Your task to perform on an android device: Go to accessibility settings Image 0: 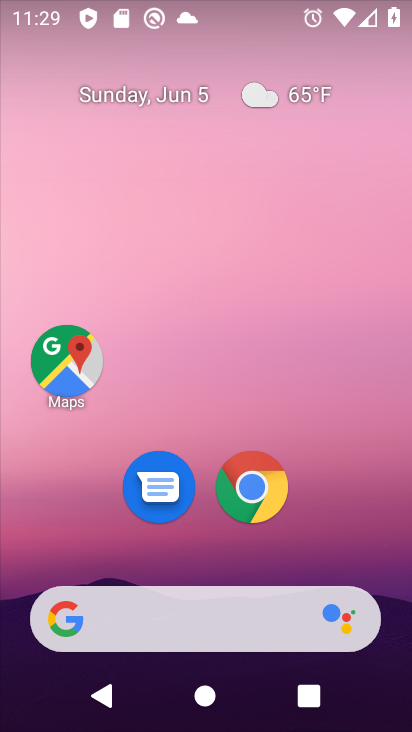
Step 0: drag from (335, 548) to (217, 84)
Your task to perform on an android device: Go to accessibility settings Image 1: 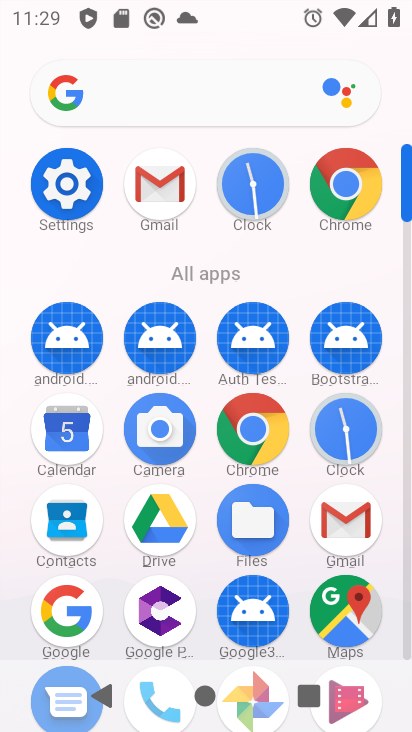
Step 1: click (66, 187)
Your task to perform on an android device: Go to accessibility settings Image 2: 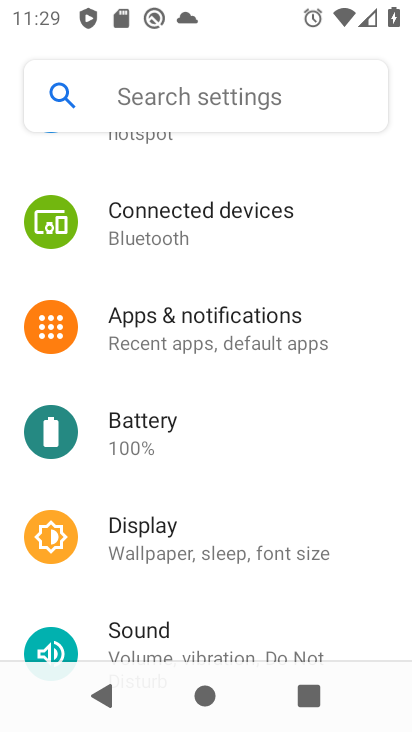
Step 2: drag from (159, 377) to (227, 273)
Your task to perform on an android device: Go to accessibility settings Image 3: 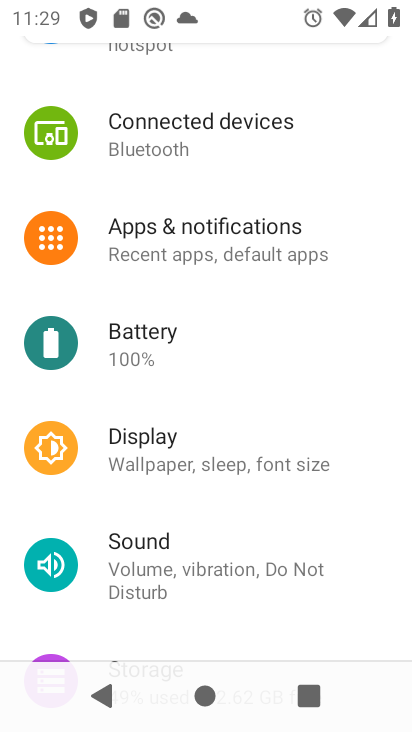
Step 3: drag from (165, 394) to (249, 300)
Your task to perform on an android device: Go to accessibility settings Image 4: 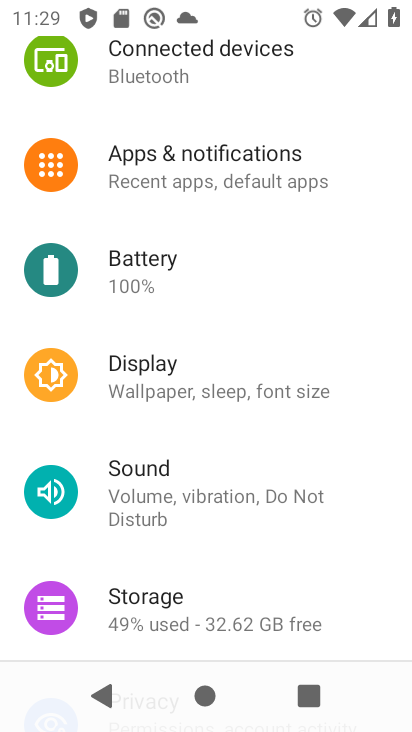
Step 4: drag from (153, 423) to (228, 333)
Your task to perform on an android device: Go to accessibility settings Image 5: 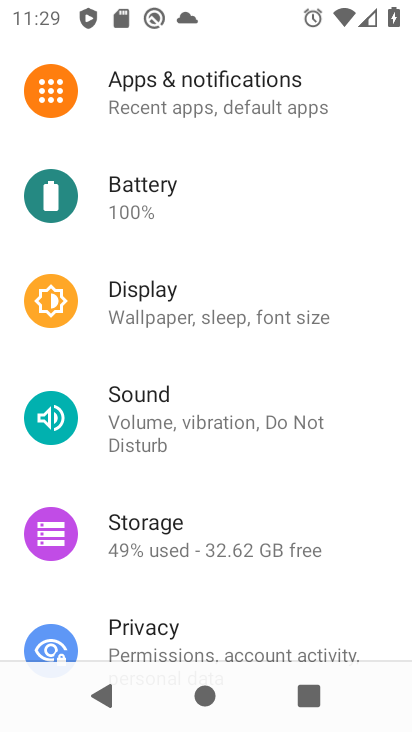
Step 5: drag from (122, 479) to (209, 350)
Your task to perform on an android device: Go to accessibility settings Image 6: 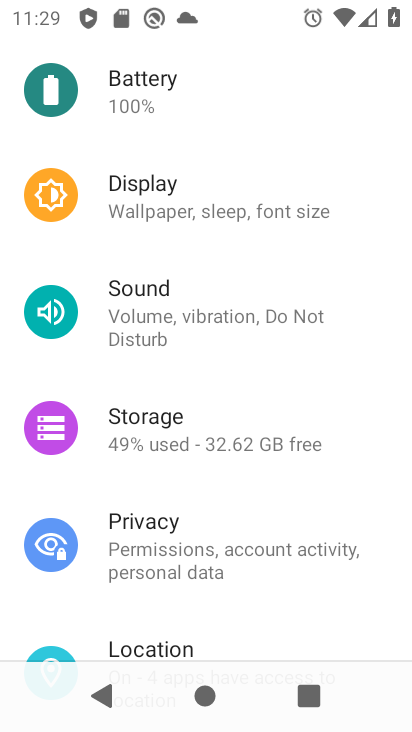
Step 6: drag from (144, 486) to (218, 361)
Your task to perform on an android device: Go to accessibility settings Image 7: 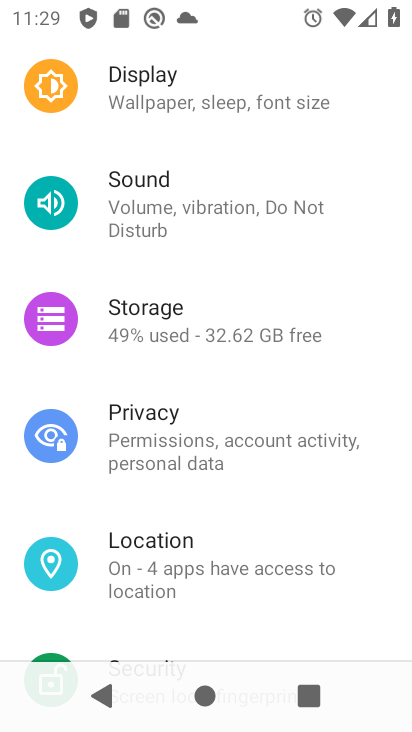
Step 7: drag from (131, 495) to (241, 364)
Your task to perform on an android device: Go to accessibility settings Image 8: 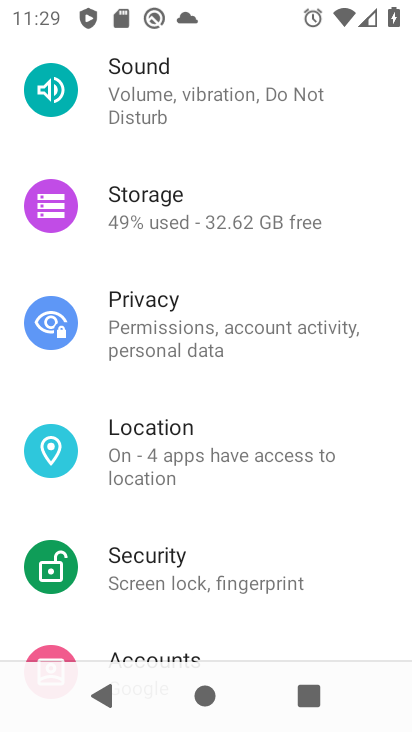
Step 8: drag from (121, 511) to (252, 359)
Your task to perform on an android device: Go to accessibility settings Image 9: 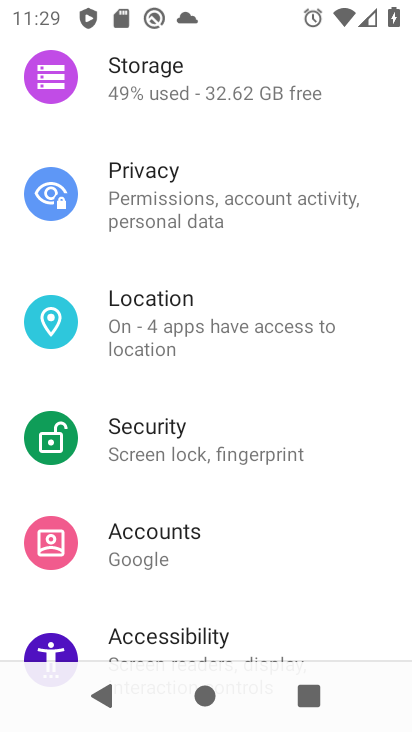
Step 9: drag from (135, 396) to (205, 263)
Your task to perform on an android device: Go to accessibility settings Image 10: 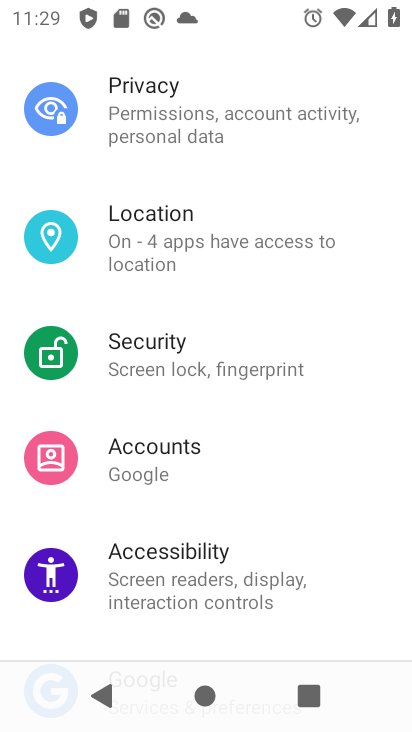
Step 10: drag from (149, 406) to (221, 301)
Your task to perform on an android device: Go to accessibility settings Image 11: 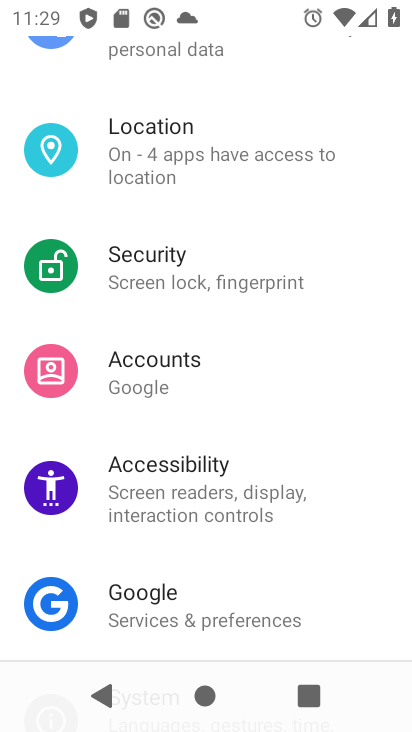
Step 11: click (162, 465)
Your task to perform on an android device: Go to accessibility settings Image 12: 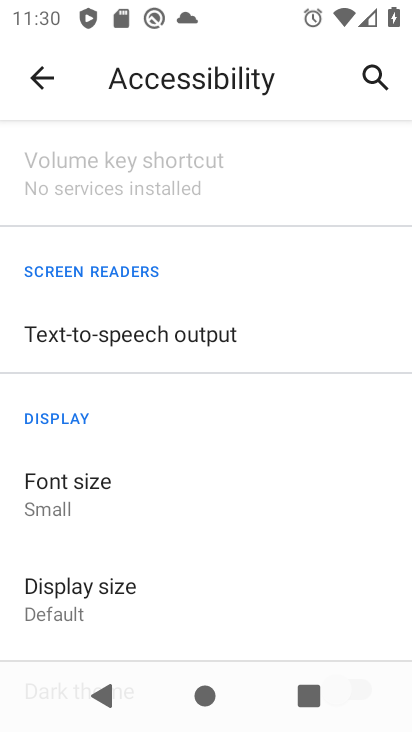
Step 12: task complete